Your task to perform on an android device: allow notifications from all sites in the chrome app Image 0: 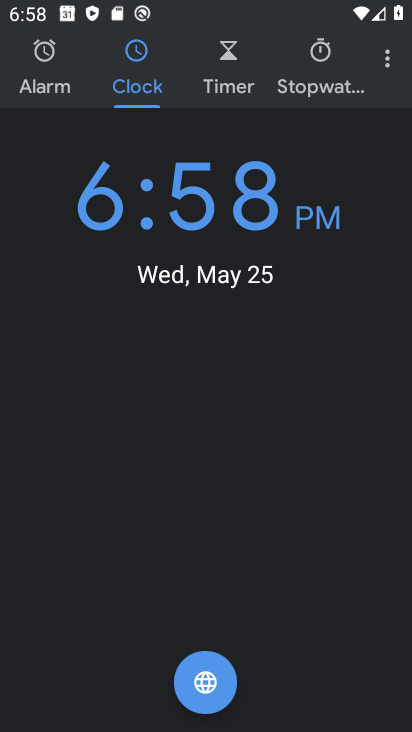
Step 0: press back button
Your task to perform on an android device: allow notifications from all sites in the chrome app Image 1: 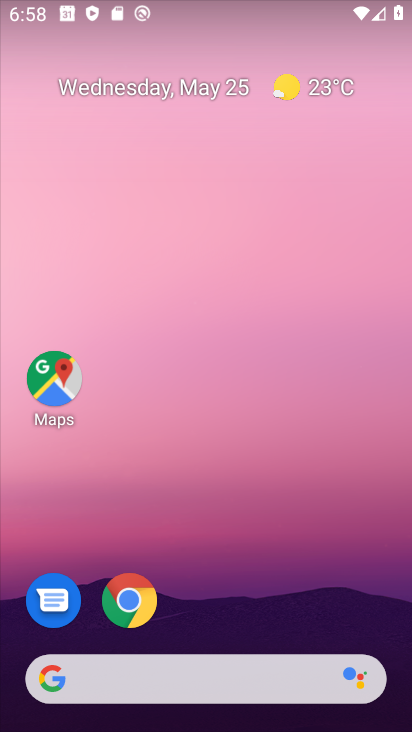
Step 1: click (129, 603)
Your task to perform on an android device: allow notifications from all sites in the chrome app Image 2: 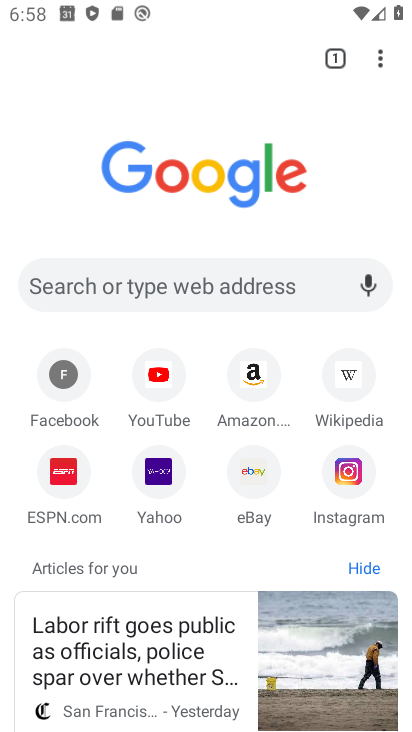
Step 2: click (381, 59)
Your task to perform on an android device: allow notifications from all sites in the chrome app Image 3: 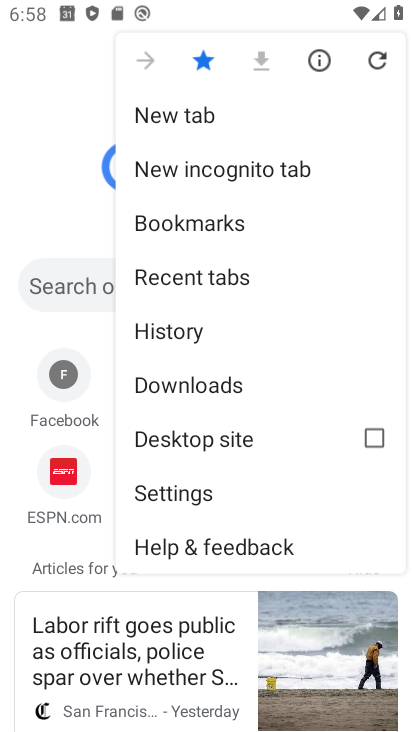
Step 3: click (178, 491)
Your task to perform on an android device: allow notifications from all sites in the chrome app Image 4: 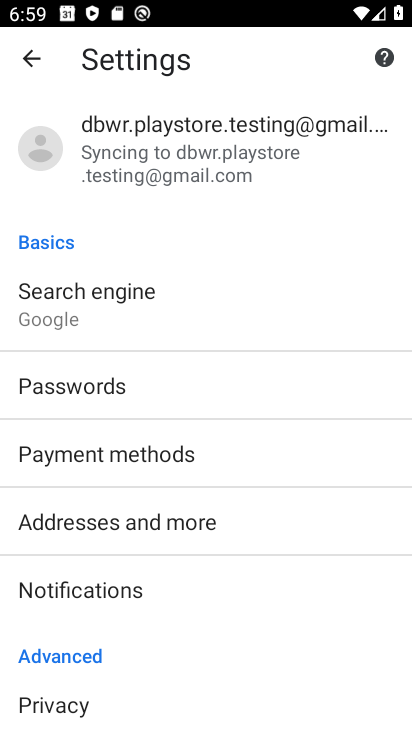
Step 4: drag from (121, 615) to (136, 521)
Your task to perform on an android device: allow notifications from all sites in the chrome app Image 5: 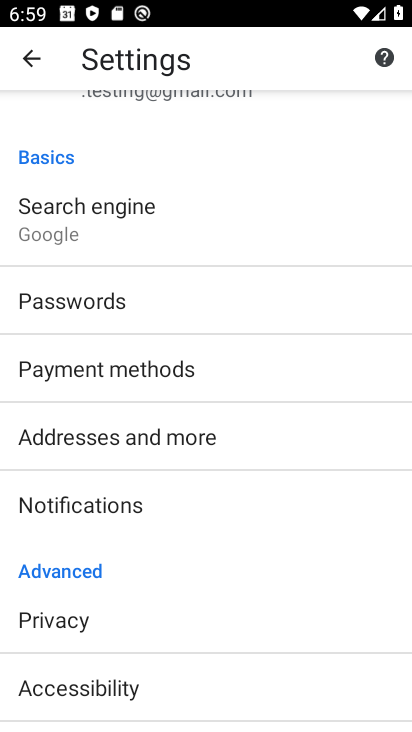
Step 5: drag from (135, 628) to (157, 548)
Your task to perform on an android device: allow notifications from all sites in the chrome app Image 6: 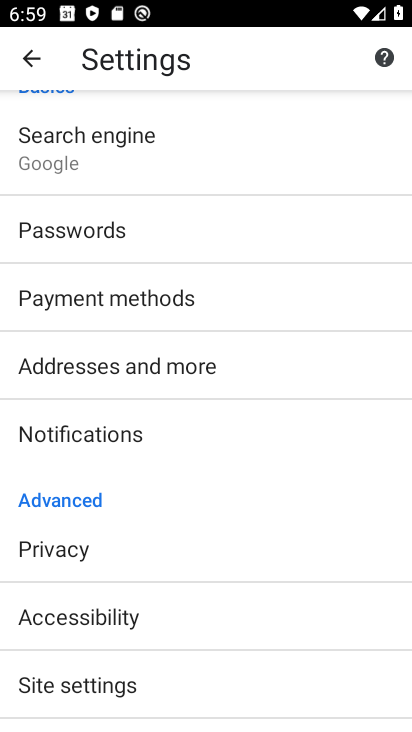
Step 6: click (109, 681)
Your task to perform on an android device: allow notifications from all sites in the chrome app Image 7: 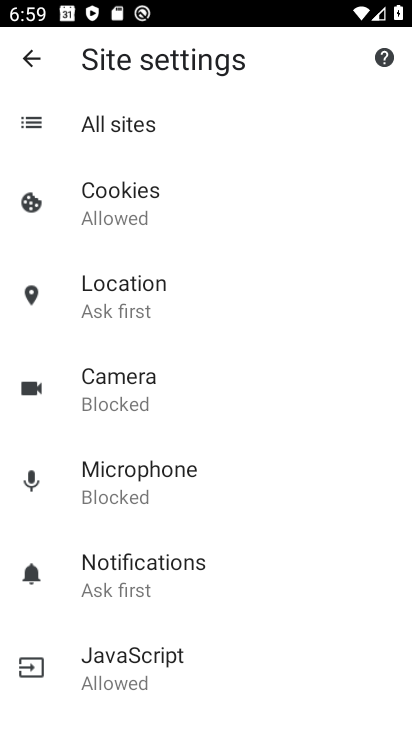
Step 7: drag from (155, 444) to (170, 340)
Your task to perform on an android device: allow notifications from all sites in the chrome app Image 8: 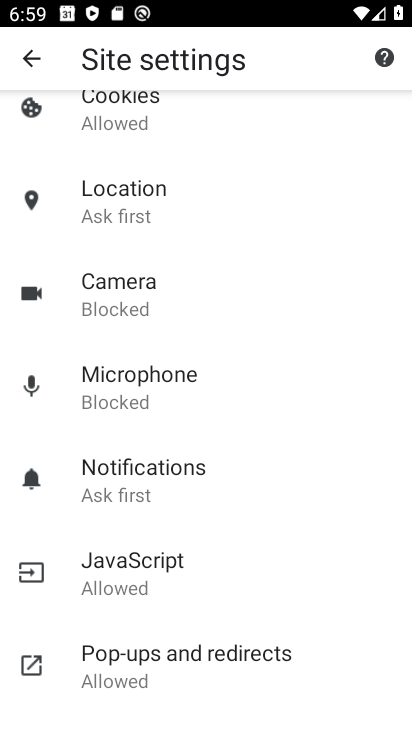
Step 8: click (169, 474)
Your task to perform on an android device: allow notifications from all sites in the chrome app Image 9: 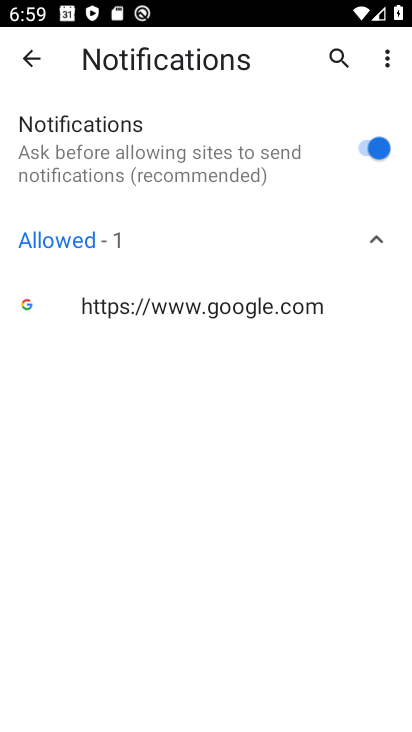
Step 9: task complete